Your task to perform on an android device: Is it going to rain today? Image 0: 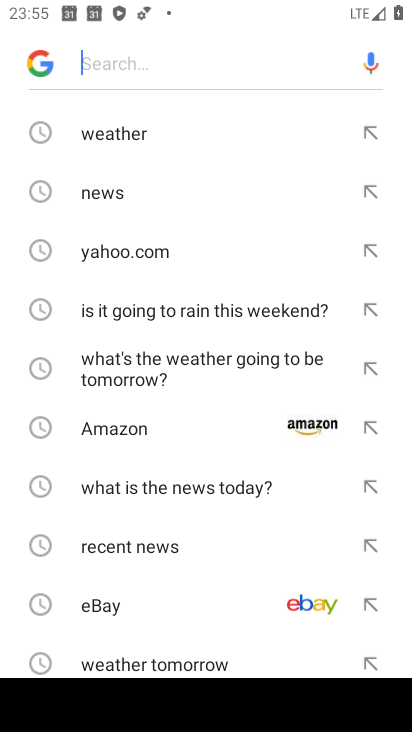
Step 0: click (107, 133)
Your task to perform on an android device: Is it going to rain today? Image 1: 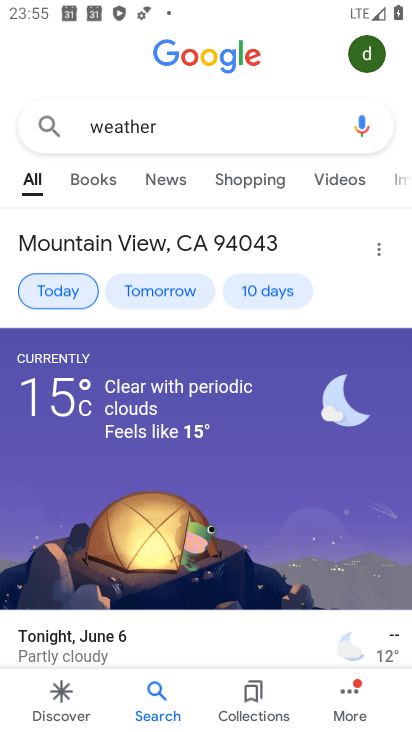
Step 1: click (65, 288)
Your task to perform on an android device: Is it going to rain today? Image 2: 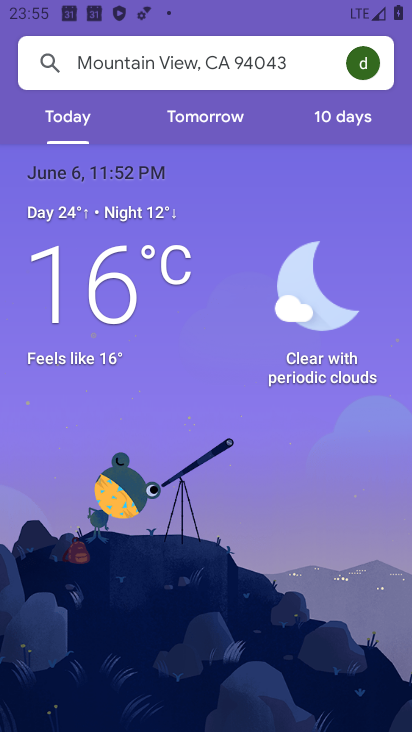
Step 2: task complete